Your task to perform on an android device: Go to privacy settings Image 0: 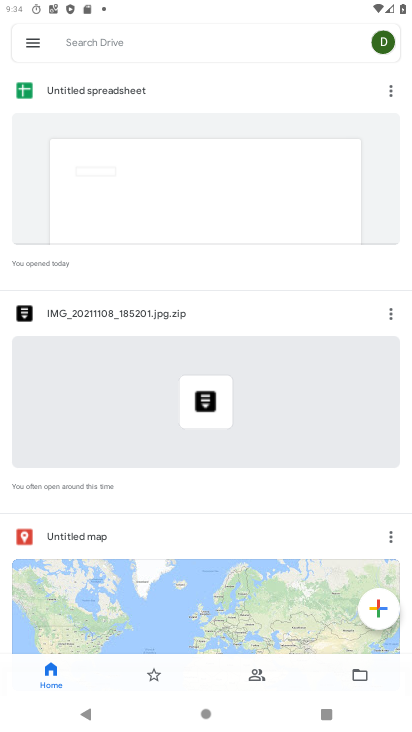
Step 0: press home button
Your task to perform on an android device: Go to privacy settings Image 1: 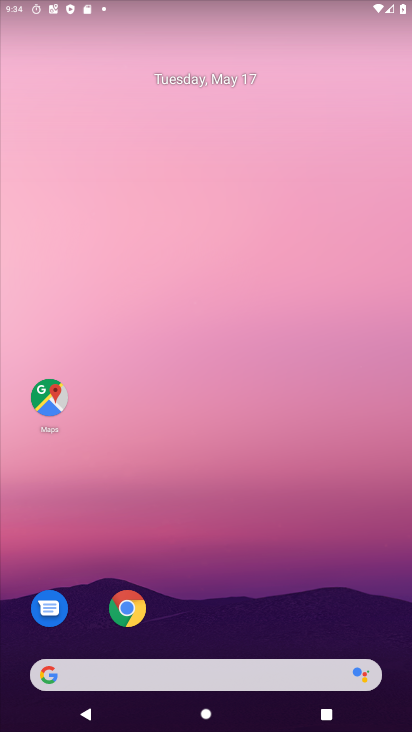
Step 1: drag from (334, 528) to (334, 194)
Your task to perform on an android device: Go to privacy settings Image 2: 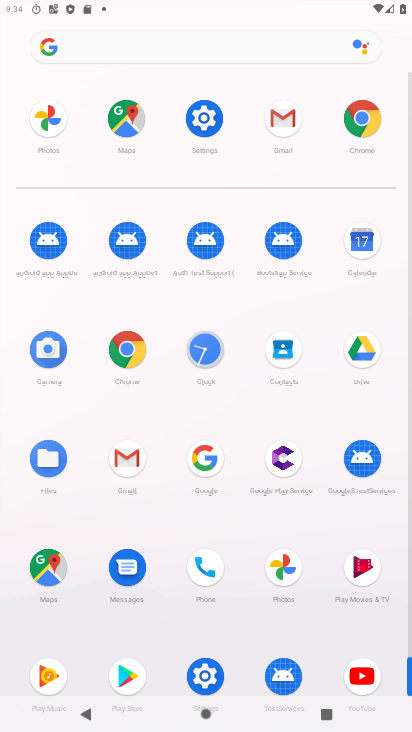
Step 2: click (213, 660)
Your task to perform on an android device: Go to privacy settings Image 3: 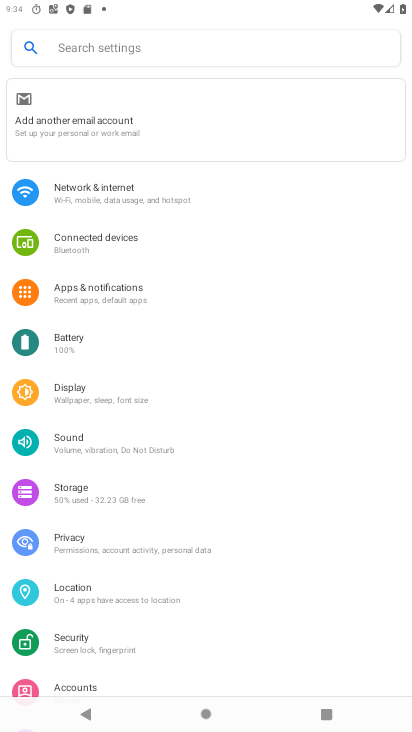
Step 3: click (156, 538)
Your task to perform on an android device: Go to privacy settings Image 4: 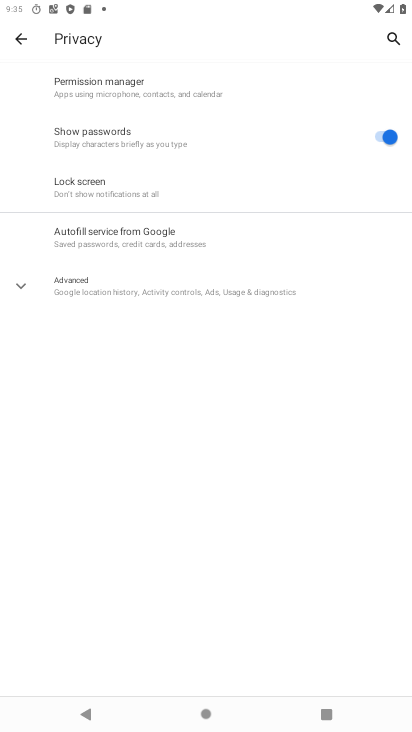
Step 4: task complete